Your task to perform on an android device: Open location settings Image 0: 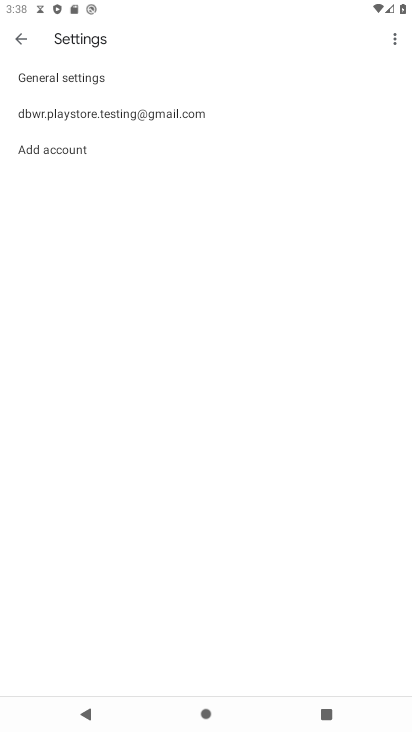
Step 0: press home button
Your task to perform on an android device: Open location settings Image 1: 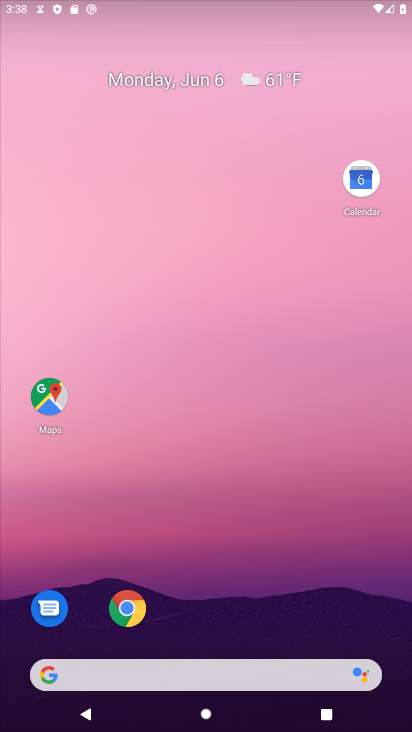
Step 1: drag from (204, 641) to (238, 42)
Your task to perform on an android device: Open location settings Image 2: 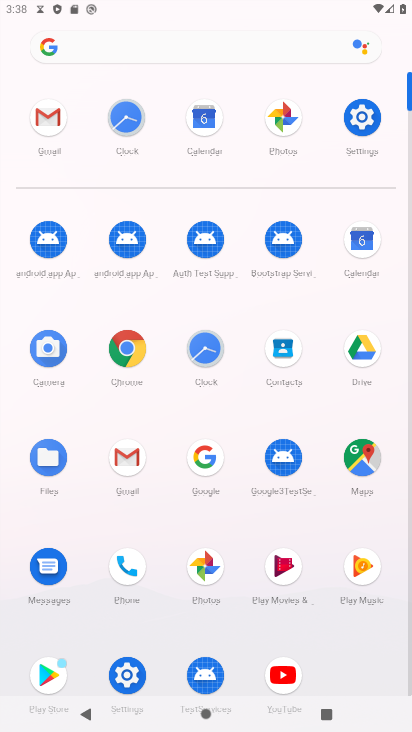
Step 2: click (359, 126)
Your task to perform on an android device: Open location settings Image 3: 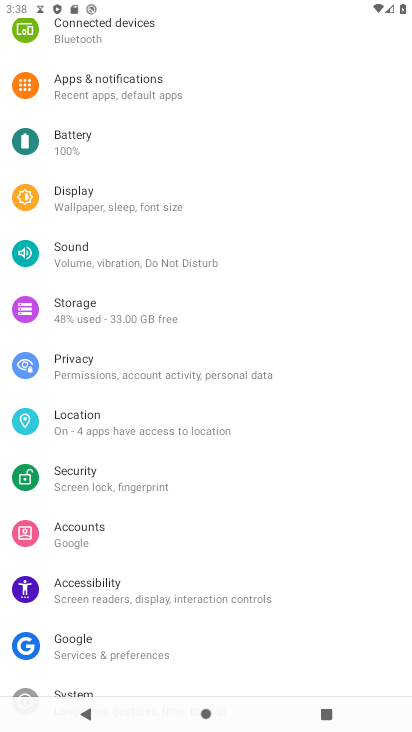
Step 3: click (85, 426)
Your task to perform on an android device: Open location settings Image 4: 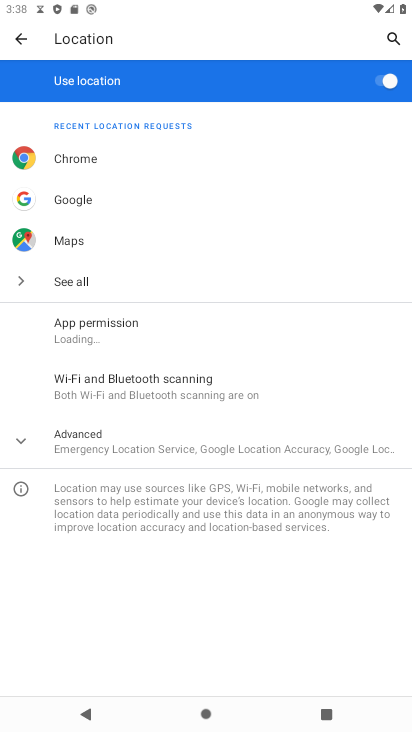
Step 4: task complete